Your task to perform on an android device: turn off priority inbox in the gmail app Image 0: 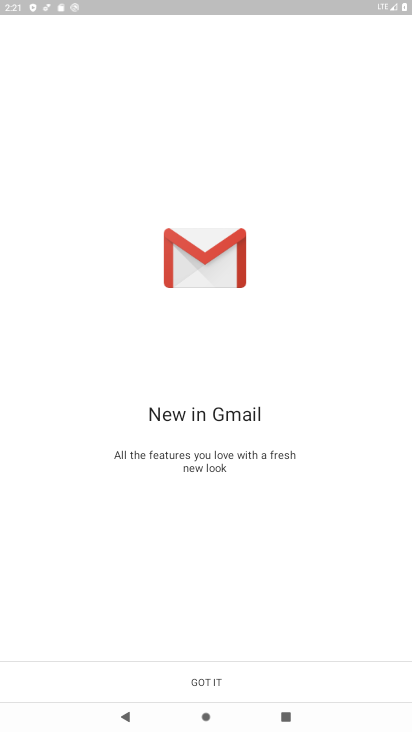
Step 0: press home button
Your task to perform on an android device: turn off priority inbox in the gmail app Image 1: 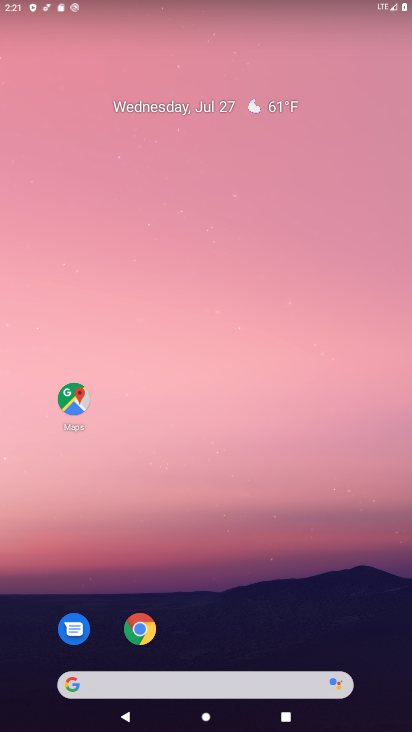
Step 1: drag from (186, 687) to (176, 132)
Your task to perform on an android device: turn off priority inbox in the gmail app Image 2: 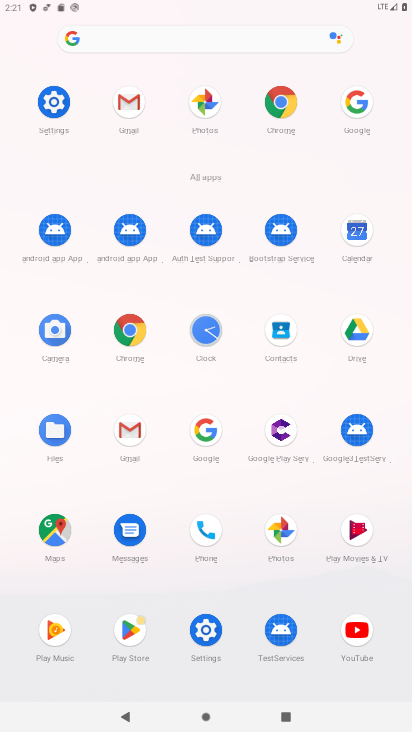
Step 2: click (129, 99)
Your task to perform on an android device: turn off priority inbox in the gmail app Image 3: 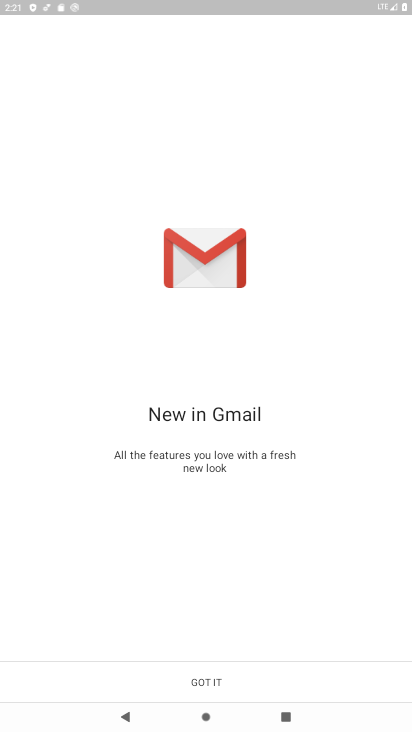
Step 3: click (207, 680)
Your task to perform on an android device: turn off priority inbox in the gmail app Image 4: 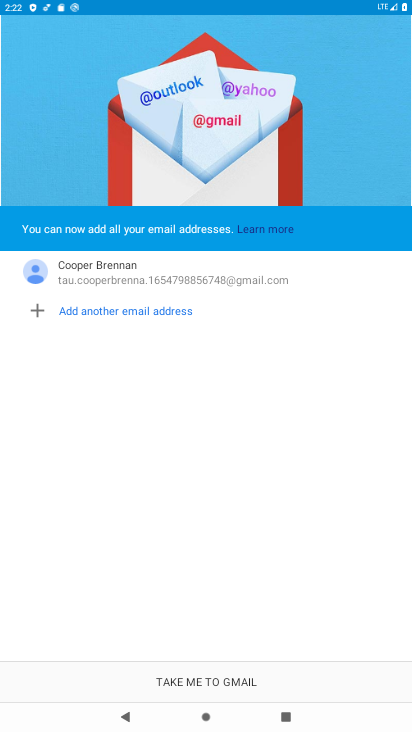
Step 4: click (207, 680)
Your task to perform on an android device: turn off priority inbox in the gmail app Image 5: 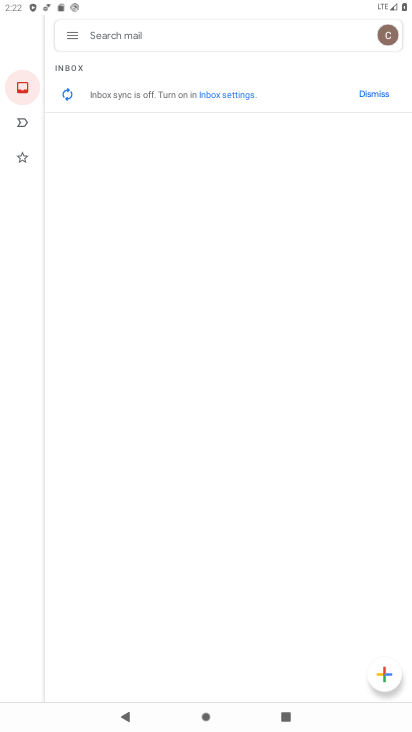
Step 5: click (71, 32)
Your task to perform on an android device: turn off priority inbox in the gmail app Image 6: 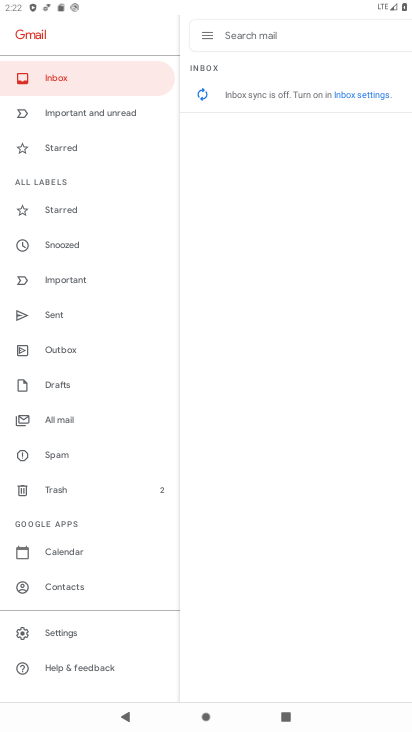
Step 6: click (64, 630)
Your task to perform on an android device: turn off priority inbox in the gmail app Image 7: 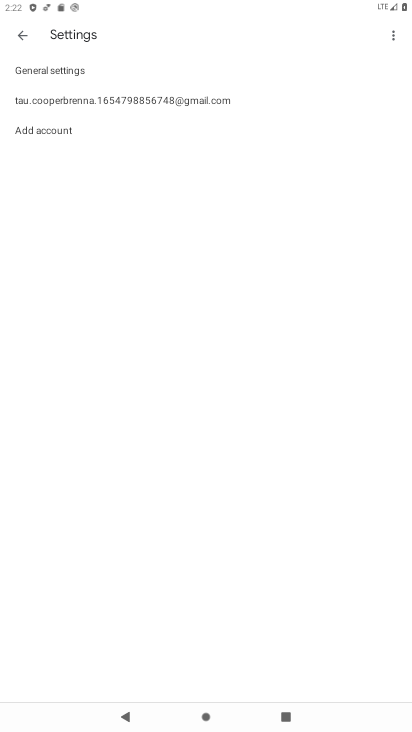
Step 7: click (131, 98)
Your task to perform on an android device: turn off priority inbox in the gmail app Image 8: 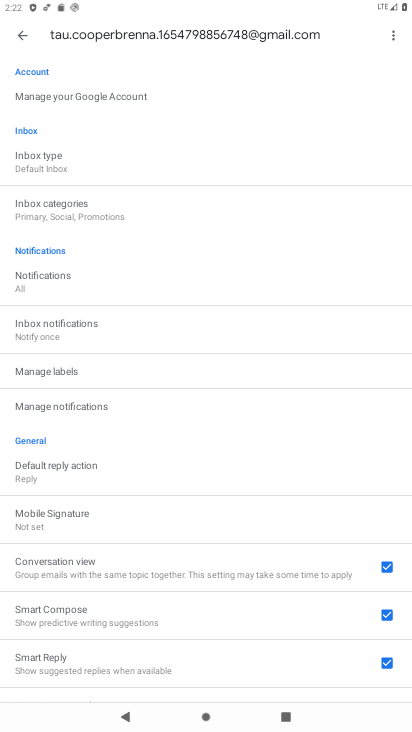
Step 8: click (56, 160)
Your task to perform on an android device: turn off priority inbox in the gmail app Image 9: 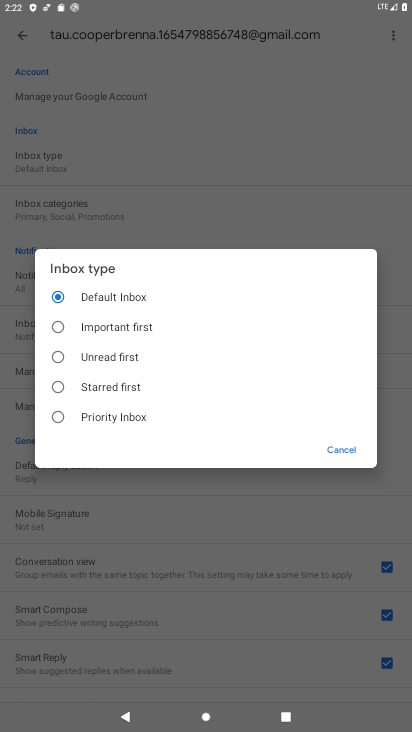
Step 9: click (59, 295)
Your task to perform on an android device: turn off priority inbox in the gmail app Image 10: 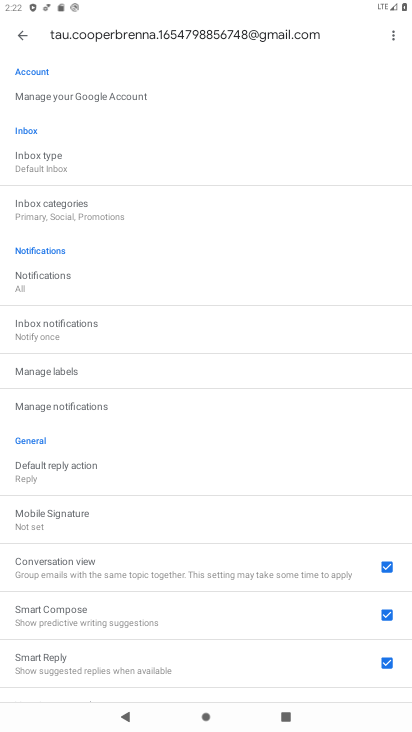
Step 10: task complete